Your task to perform on an android device: change the clock display to digital Image 0: 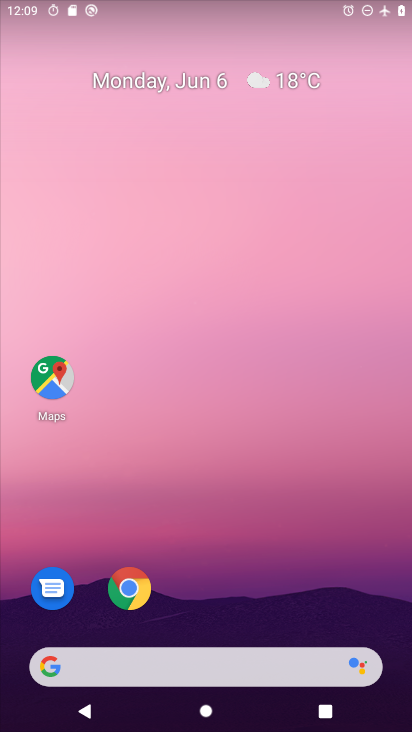
Step 0: drag from (350, 621) to (352, 112)
Your task to perform on an android device: change the clock display to digital Image 1: 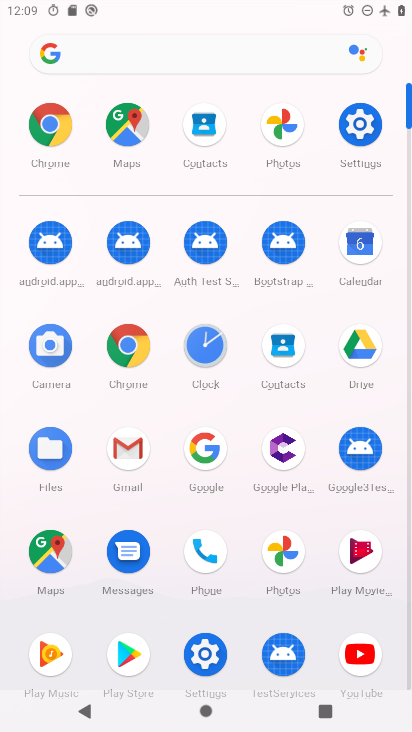
Step 1: click (208, 356)
Your task to perform on an android device: change the clock display to digital Image 2: 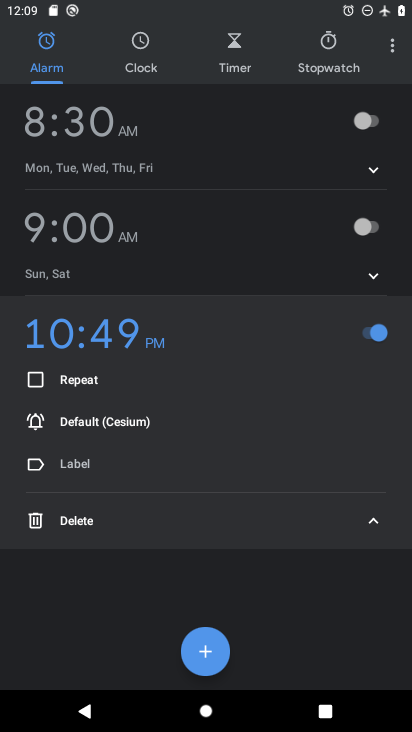
Step 2: click (396, 53)
Your task to perform on an android device: change the clock display to digital Image 3: 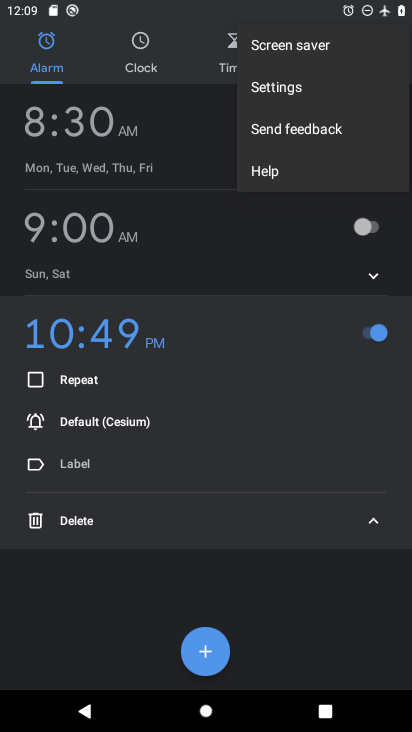
Step 3: click (303, 89)
Your task to perform on an android device: change the clock display to digital Image 4: 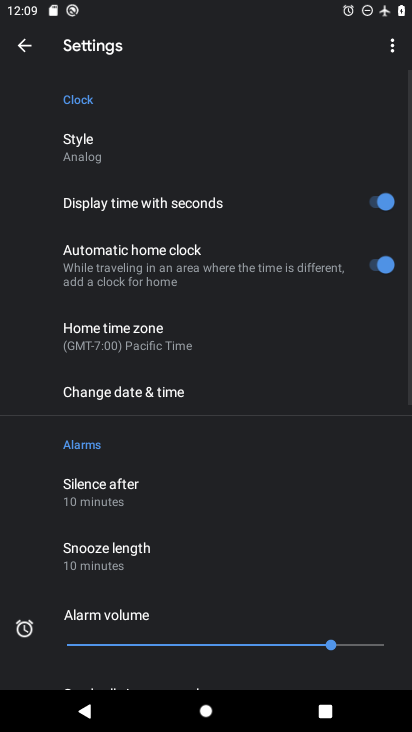
Step 4: drag from (294, 456) to (302, 374)
Your task to perform on an android device: change the clock display to digital Image 5: 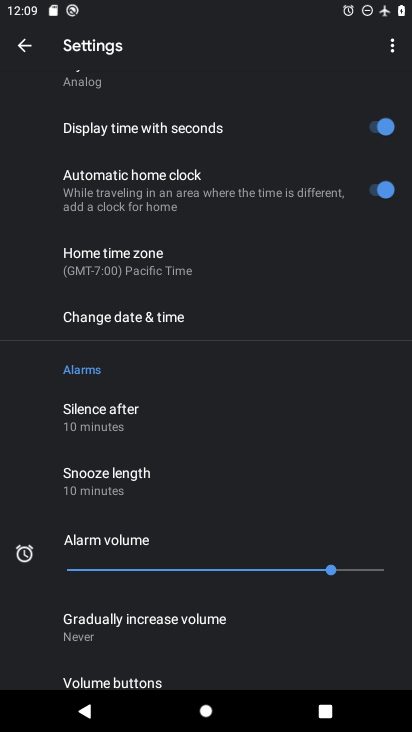
Step 5: drag from (321, 488) to (324, 385)
Your task to perform on an android device: change the clock display to digital Image 6: 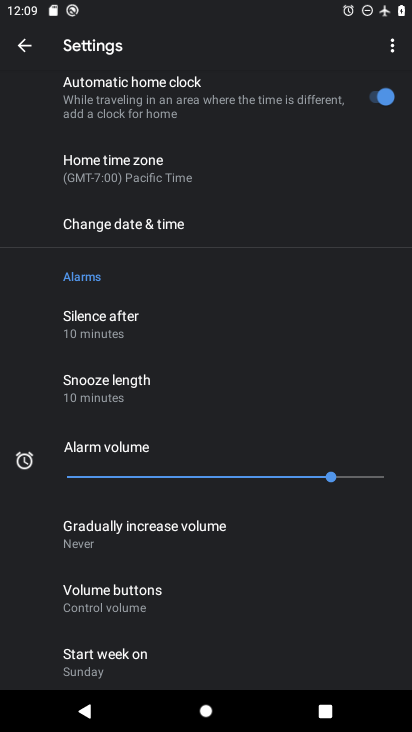
Step 6: drag from (321, 587) to (339, 391)
Your task to perform on an android device: change the clock display to digital Image 7: 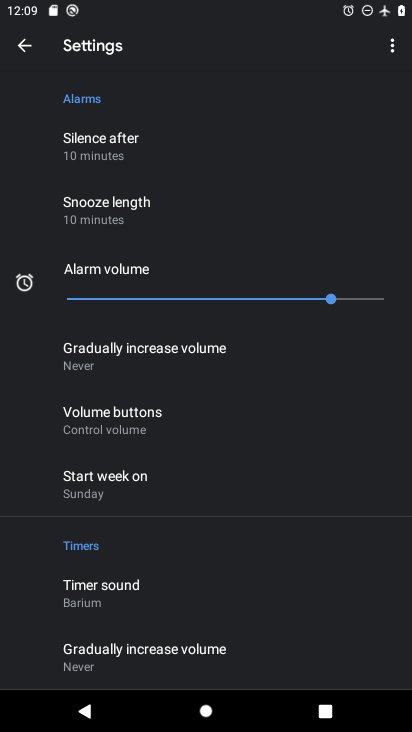
Step 7: drag from (337, 510) to (335, 405)
Your task to perform on an android device: change the clock display to digital Image 8: 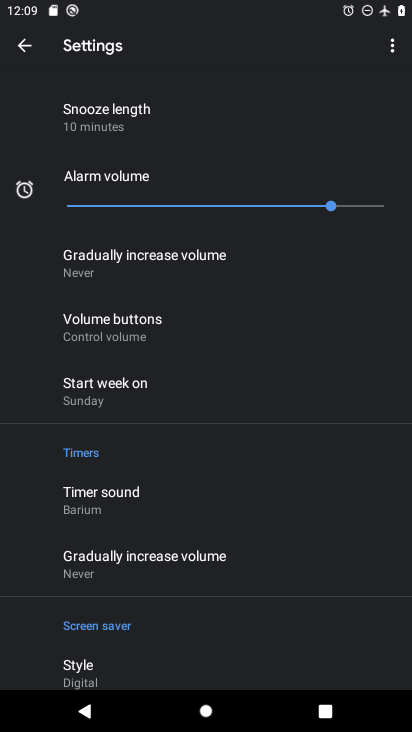
Step 8: drag from (334, 540) to (334, 370)
Your task to perform on an android device: change the clock display to digital Image 9: 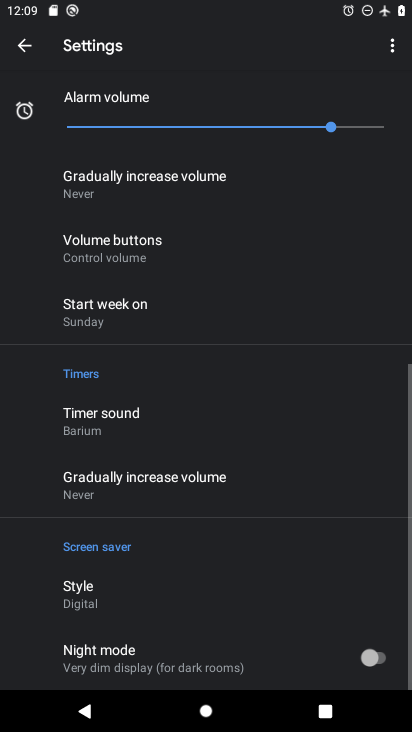
Step 9: drag from (334, 285) to (333, 395)
Your task to perform on an android device: change the clock display to digital Image 10: 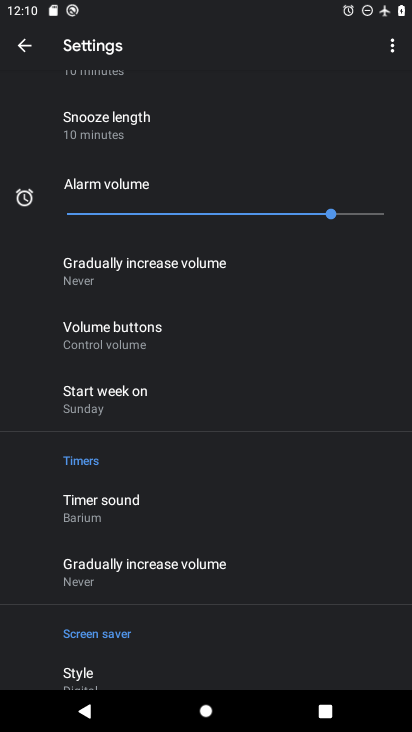
Step 10: drag from (330, 290) to (330, 381)
Your task to perform on an android device: change the clock display to digital Image 11: 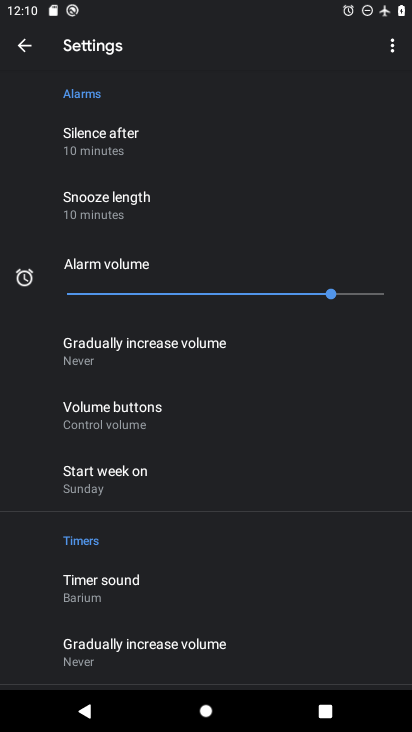
Step 11: drag from (338, 219) to (338, 320)
Your task to perform on an android device: change the clock display to digital Image 12: 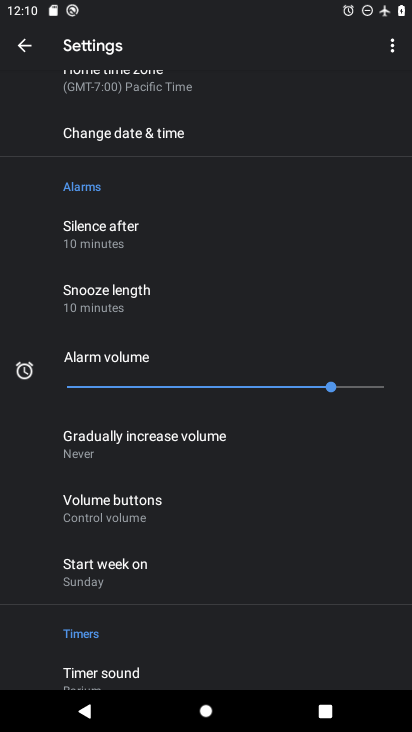
Step 12: drag from (332, 227) to (333, 333)
Your task to perform on an android device: change the clock display to digital Image 13: 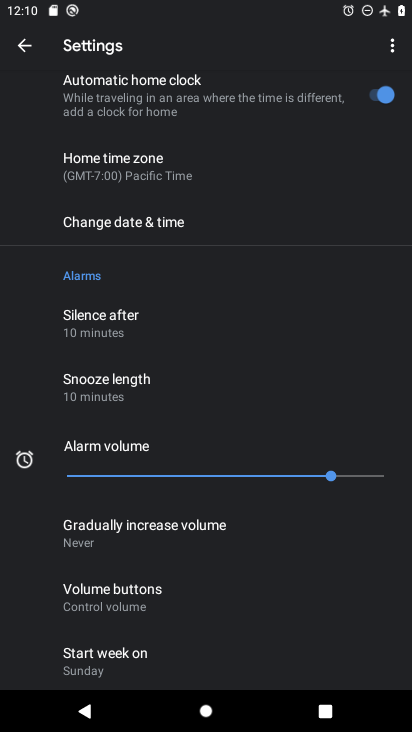
Step 13: drag from (331, 216) to (331, 313)
Your task to perform on an android device: change the clock display to digital Image 14: 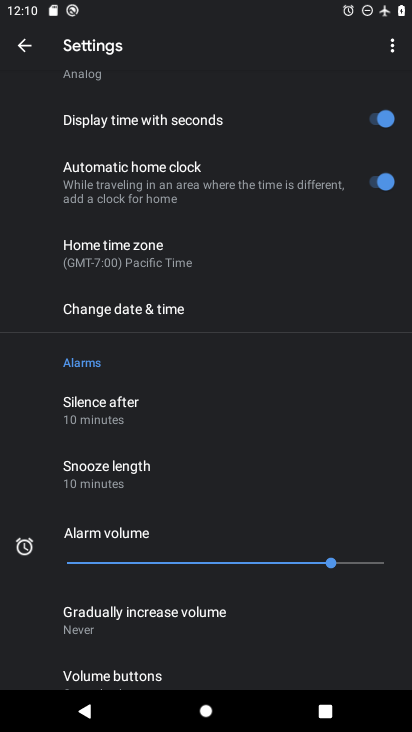
Step 14: drag from (305, 149) to (320, 298)
Your task to perform on an android device: change the clock display to digital Image 15: 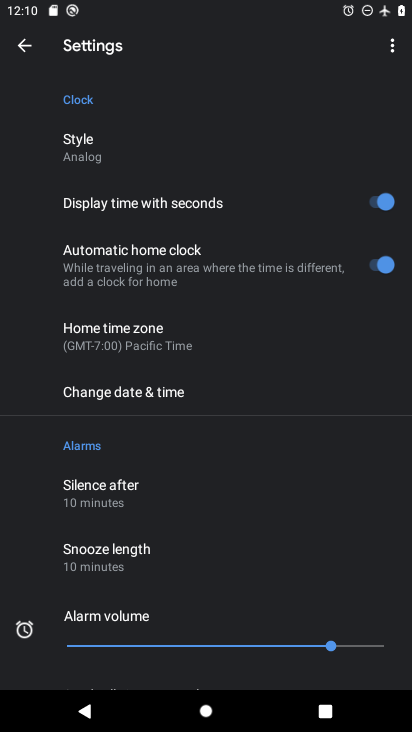
Step 15: click (108, 149)
Your task to perform on an android device: change the clock display to digital Image 16: 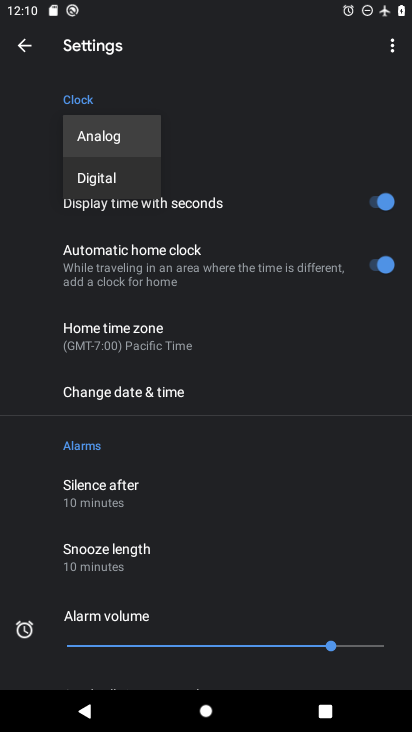
Step 16: click (120, 180)
Your task to perform on an android device: change the clock display to digital Image 17: 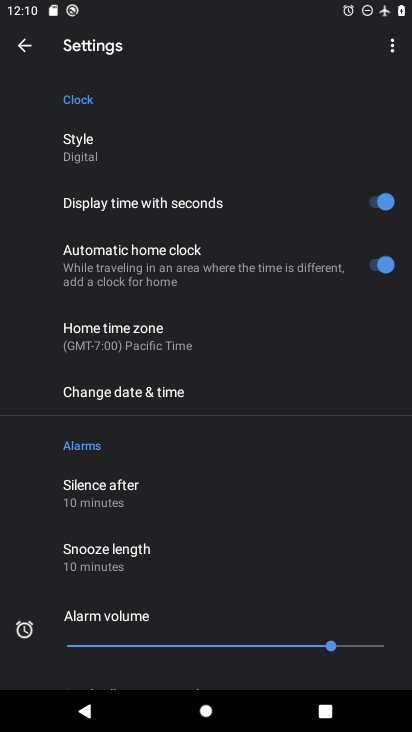
Step 17: task complete